Your task to perform on an android device: Play the last video I watched on Youtube Image 0: 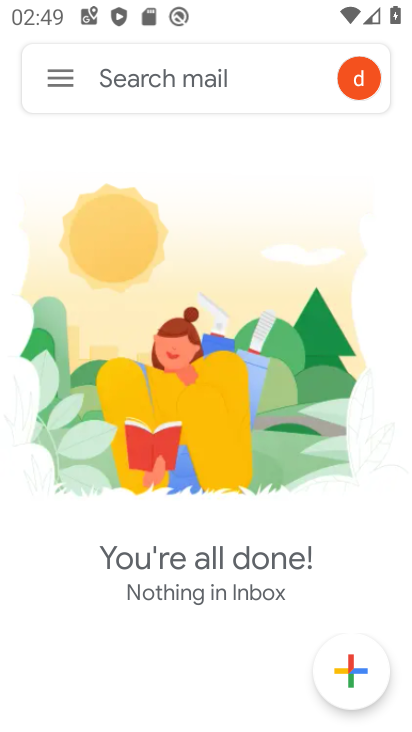
Step 0: press back button
Your task to perform on an android device: Play the last video I watched on Youtube Image 1: 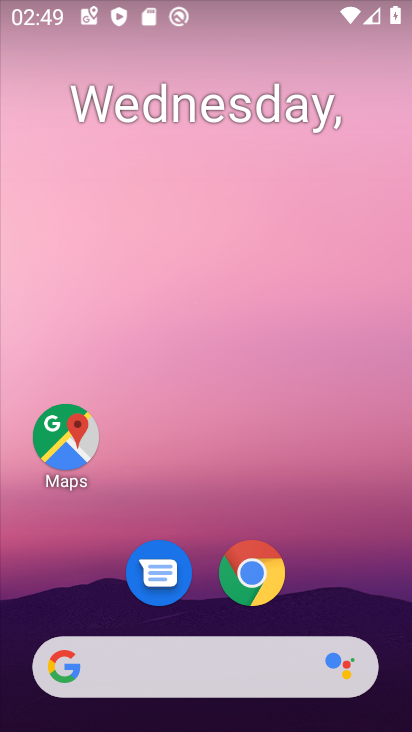
Step 1: drag from (337, 594) to (291, 11)
Your task to perform on an android device: Play the last video I watched on Youtube Image 2: 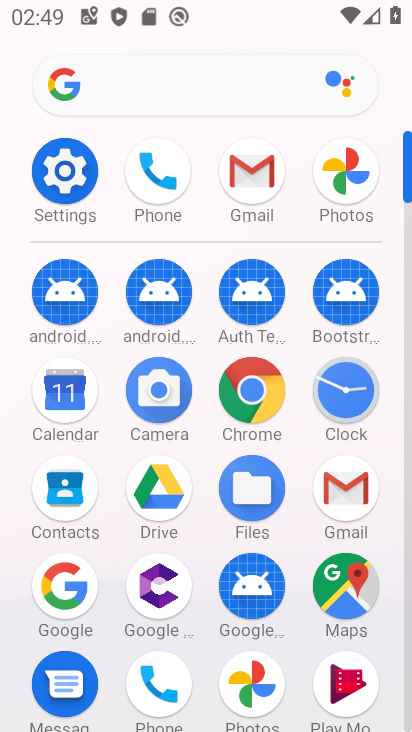
Step 2: drag from (293, 465) to (312, 67)
Your task to perform on an android device: Play the last video I watched on Youtube Image 3: 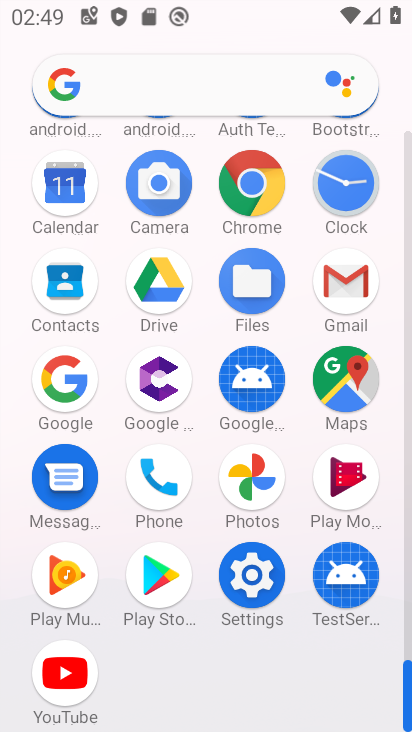
Step 3: click (62, 672)
Your task to perform on an android device: Play the last video I watched on Youtube Image 4: 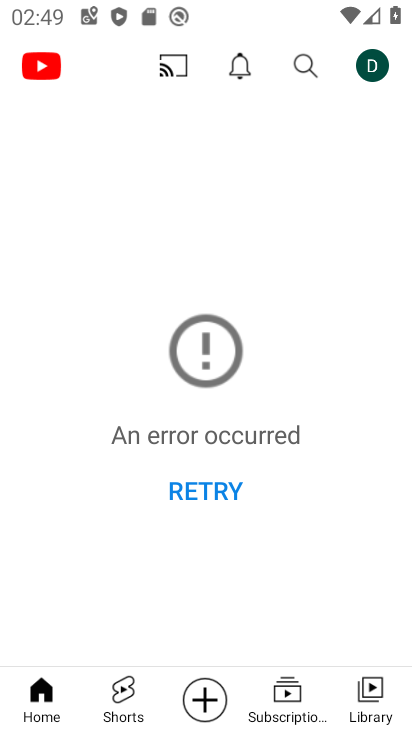
Step 4: click (224, 484)
Your task to perform on an android device: Play the last video I watched on Youtube Image 5: 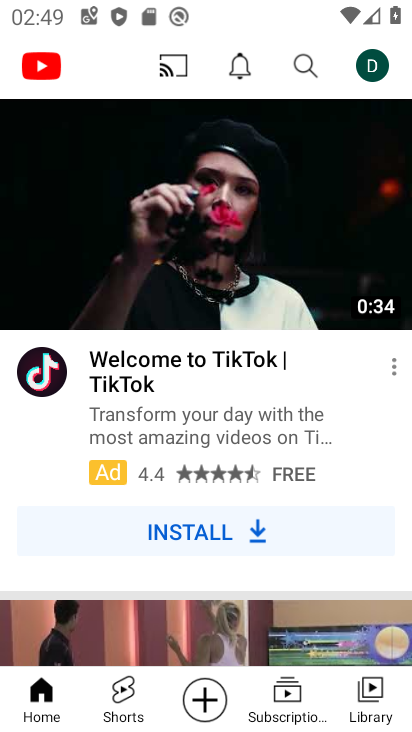
Step 5: click (369, 691)
Your task to perform on an android device: Play the last video I watched on Youtube Image 6: 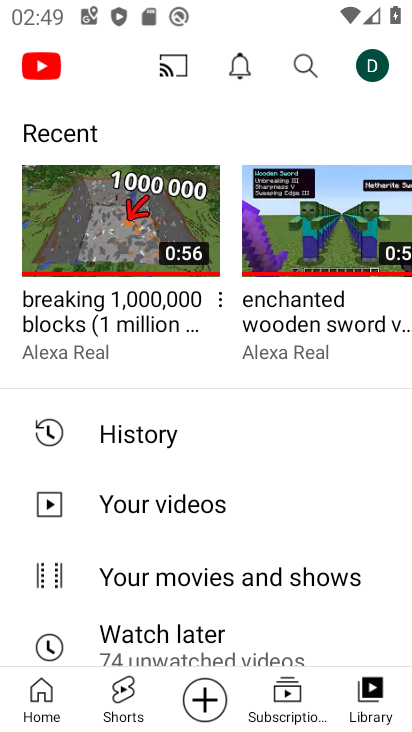
Step 6: click (118, 231)
Your task to perform on an android device: Play the last video I watched on Youtube Image 7: 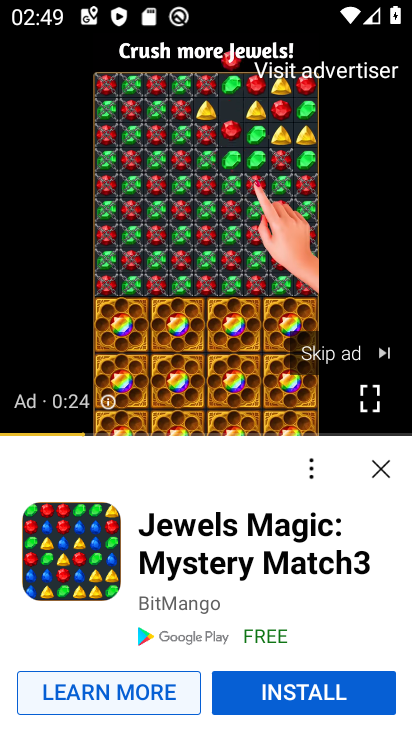
Step 7: click (365, 347)
Your task to perform on an android device: Play the last video I watched on Youtube Image 8: 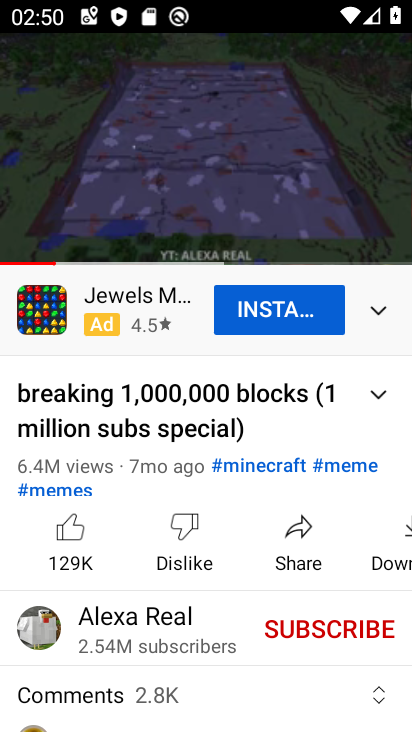
Step 8: task complete